Your task to perform on an android device: search for starred emails in the gmail app Image 0: 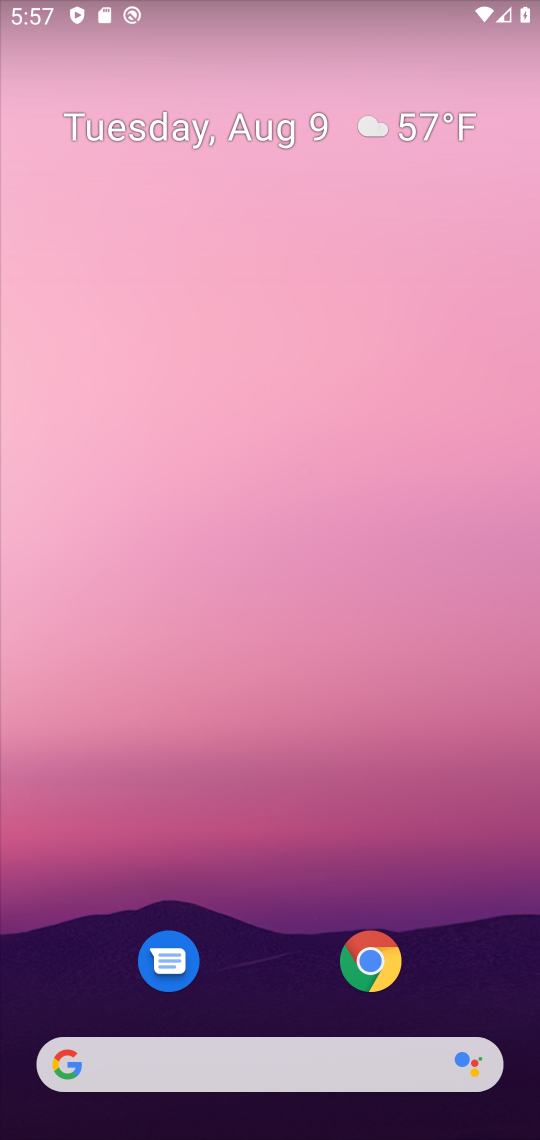
Step 0: drag from (238, 1007) to (86, 309)
Your task to perform on an android device: search for starred emails in the gmail app Image 1: 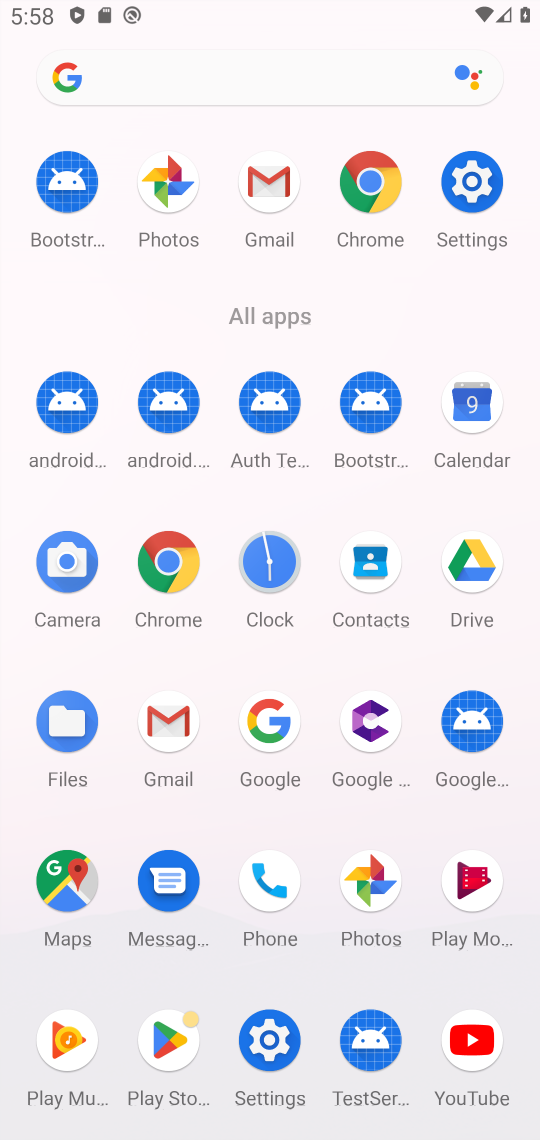
Step 1: click (175, 724)
Your task to perform on an android device: search for starred emails in the gmail app Image 2: 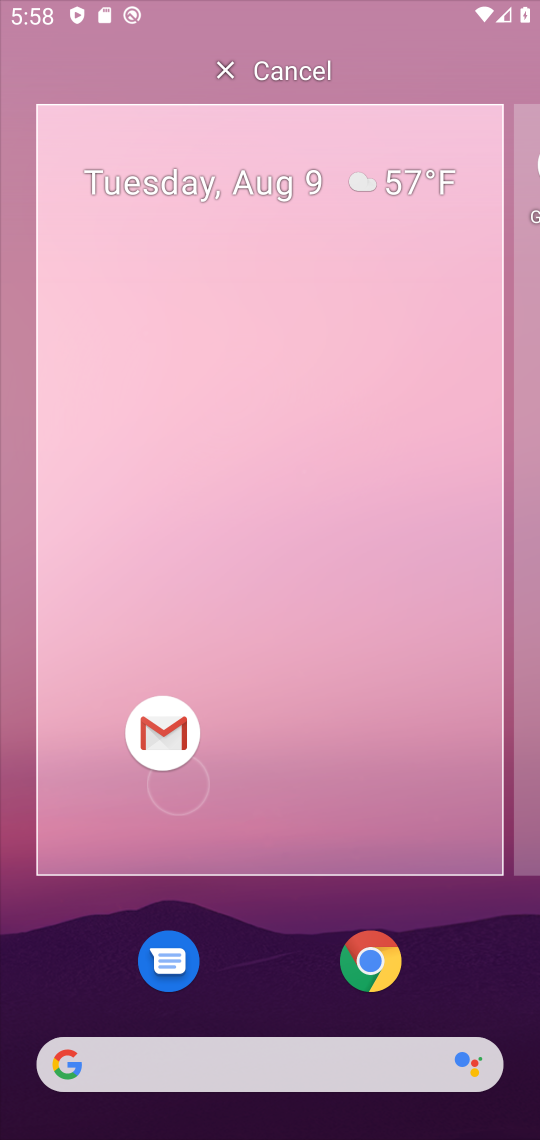
Step 2: click (160, 734)
Your task to perform on an android device: search for starred emails in the gmail app Image 3: 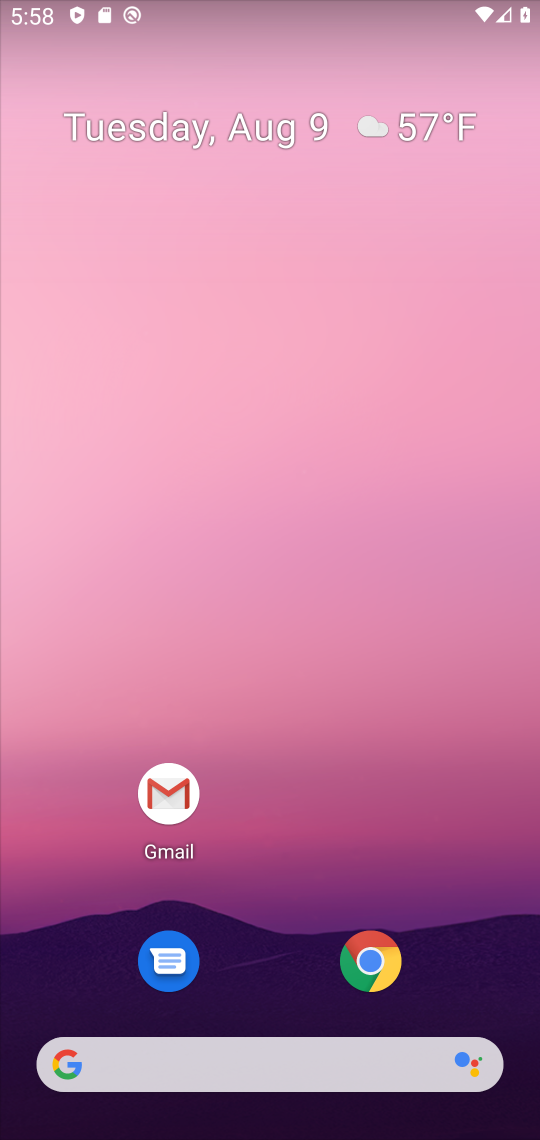
Step 3: drag from (344, 972) to (184, 13)
Your task to perform on an android device: search for starred emails in the gmail app Image 4: 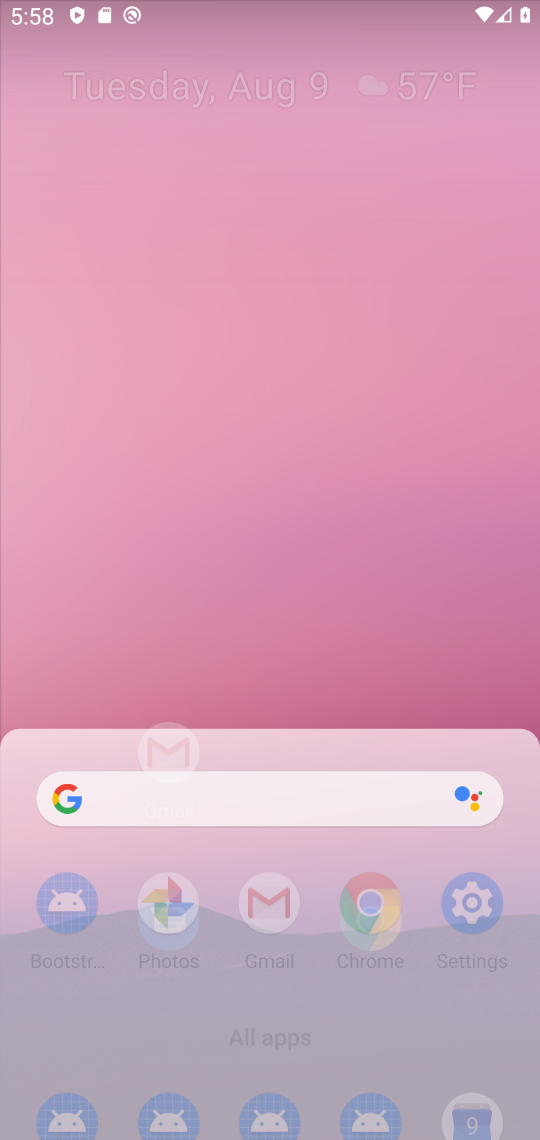
Step 4: drag from (250, 598) to (250, 135)
Your task to perform on an android device: search for starred emails in the gmail app Image 5: 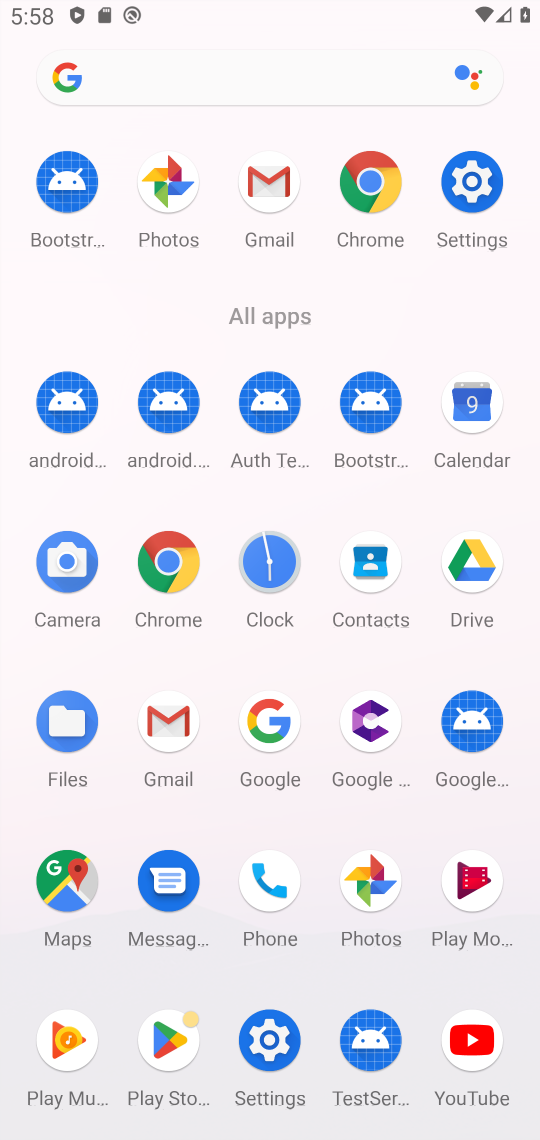
Step 5: drag from (139, 730) to (112, 259)
Your task to perform on an android device: search for starred emails in the gmail app Image 6: 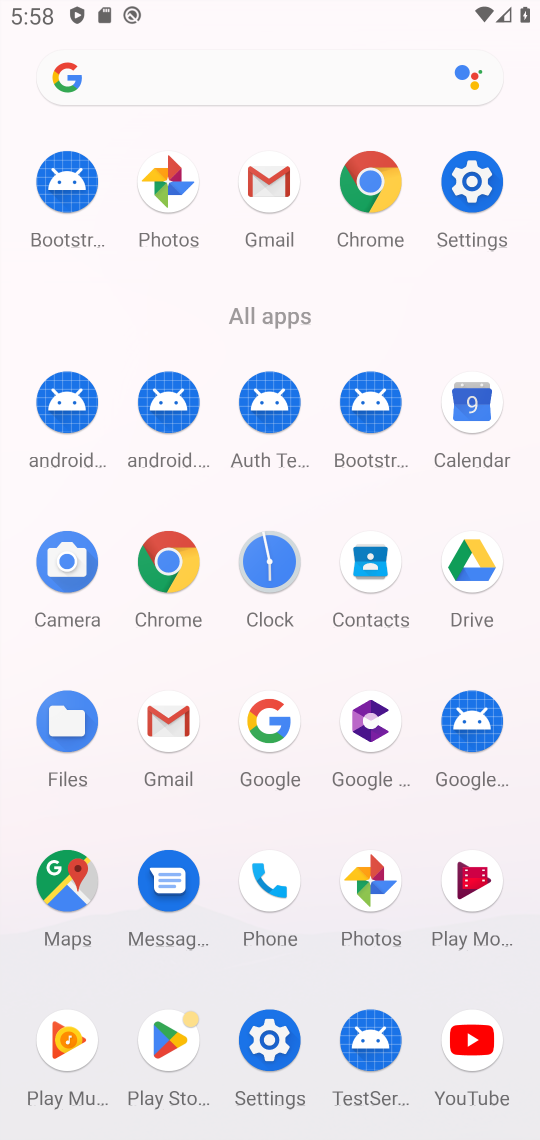
Step 6: click (160, 730)
Your task to perform on an android device: search for starred emails in the gmail app Image 7: 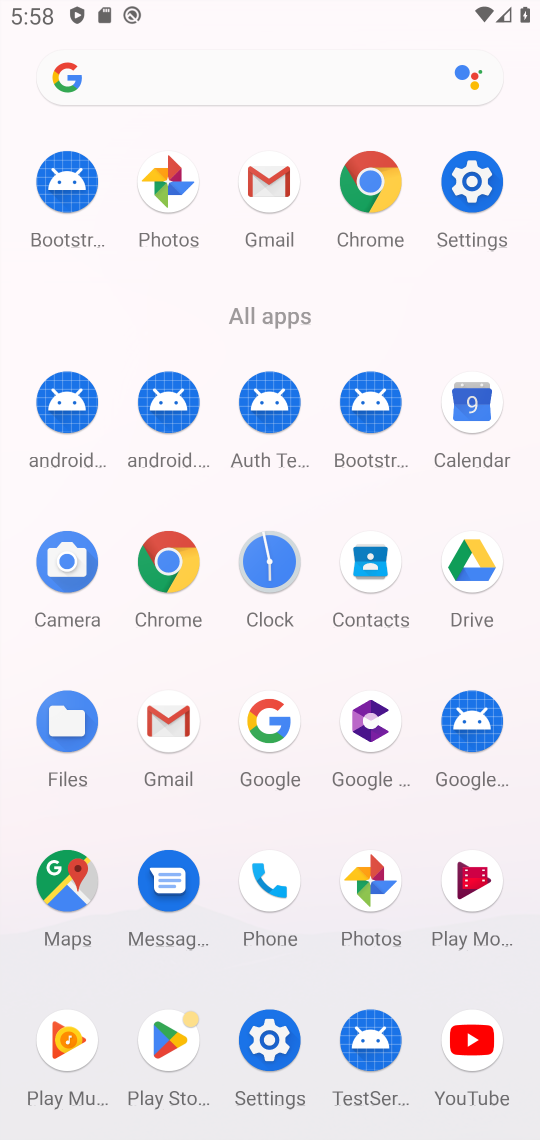
Step 7: click (160, 730)
Your task to perform on an android device: search for starred emails in the gmail app Image 8: 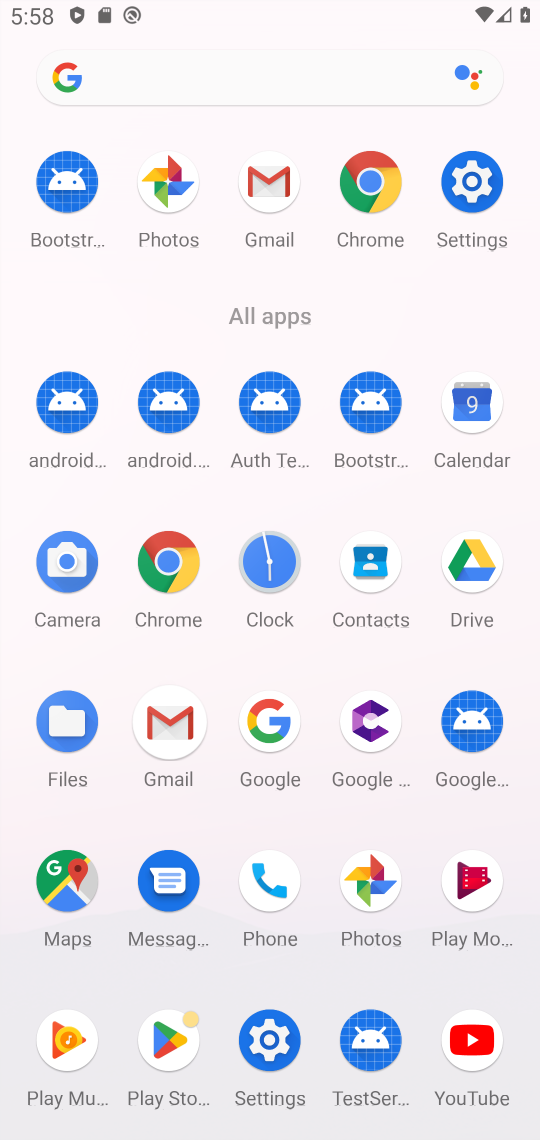
Step 8: click (163, 730)
Your task to perform on an android device: search for starred emails in the gmail app Image 9: 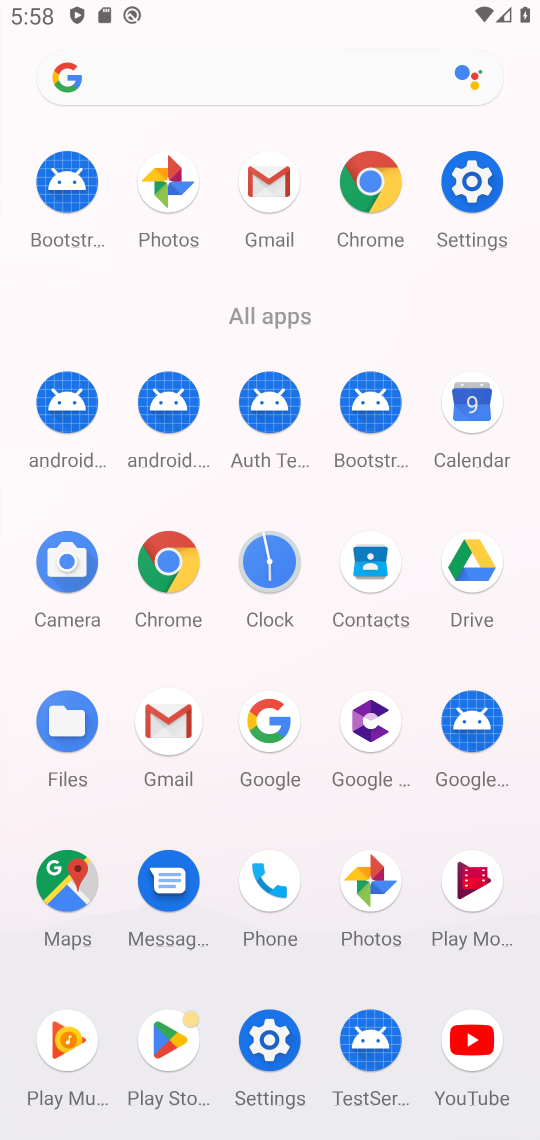
Step 9: click (179, 738)
Your task to perform on an android device: search for starred emails in the gmail app Image 10: 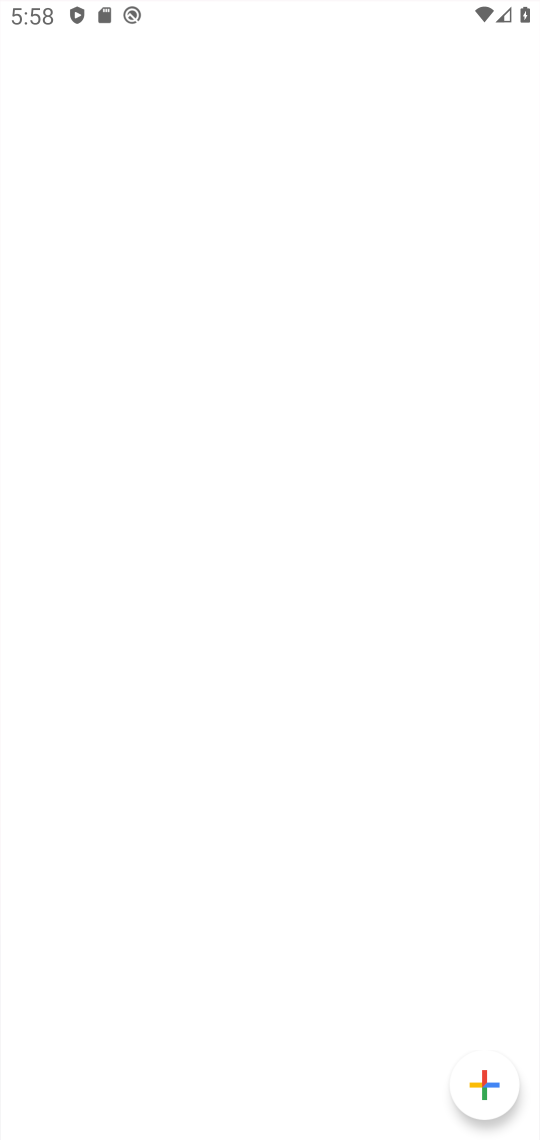
Step 10: click (179, 738)
Your task to perform on an android device: search for starred emails in the gmail app Image 11: 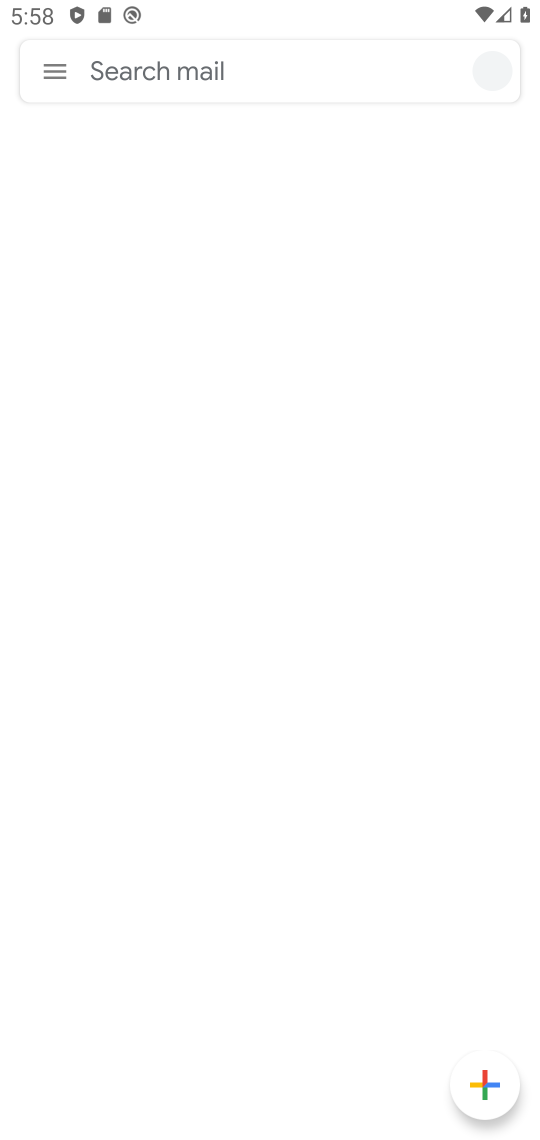
Step 11: click (179, 738)
Your task to perform on an android device: search for starred emails in the gmail app Image 12: 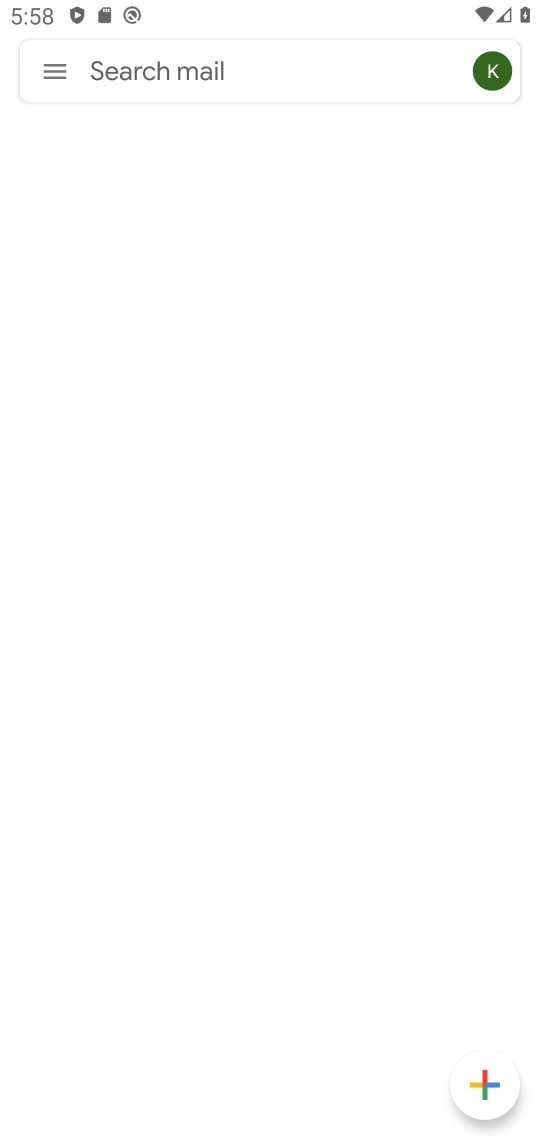
Step 12: click (179, 738)
Your task to perform on an android device: search for starred emails in the gmail app Image 13: 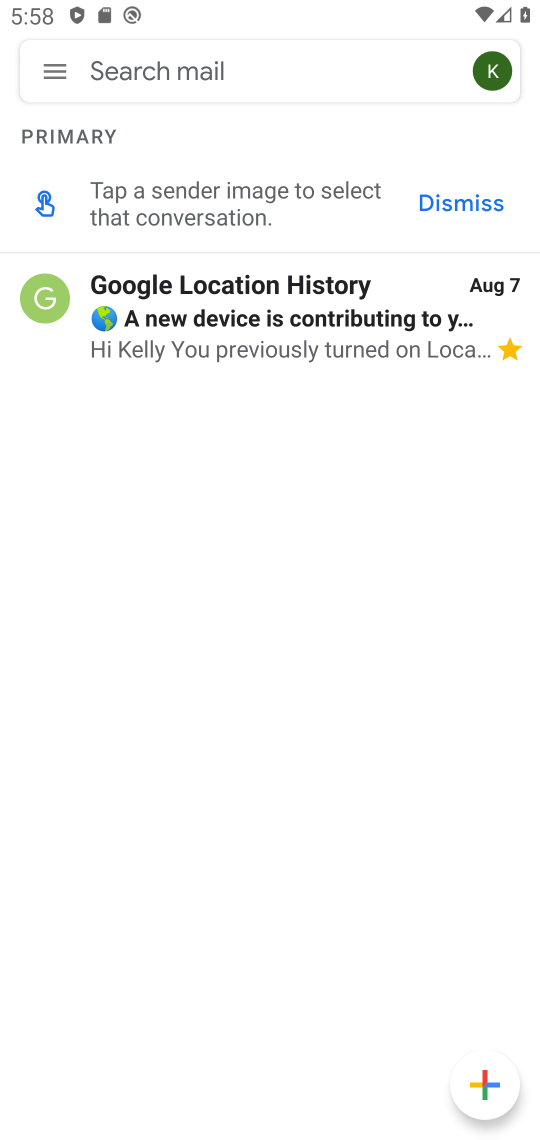
Step 13: click (80, 68)
Your task to perform on an android device: search for starred emails in the gmail app Image 14: 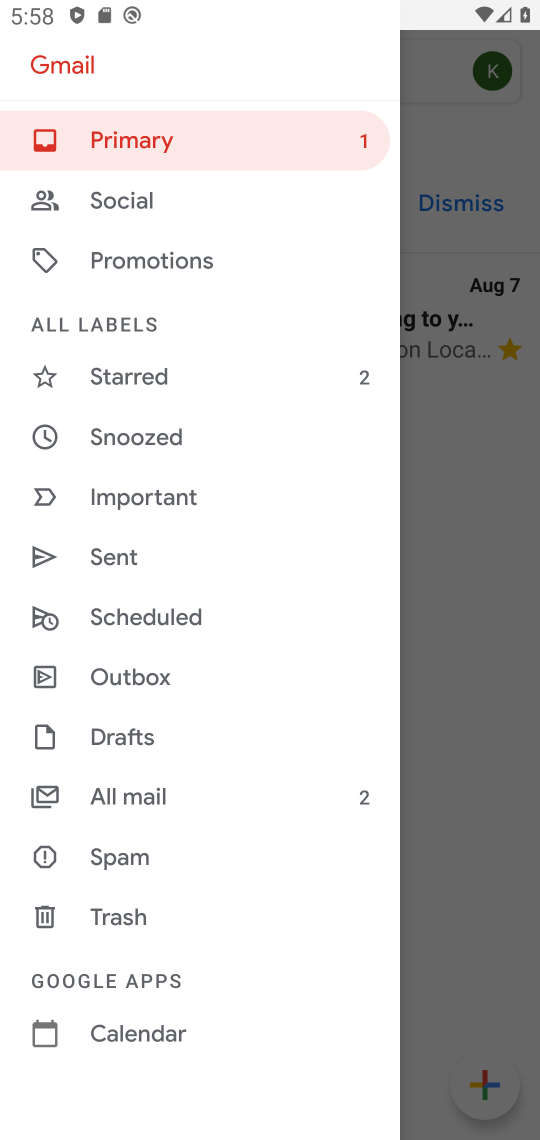
Step 14: click (85, 376)
Your task to perform on an android device: search for starred emails in the gmail app Image 15: 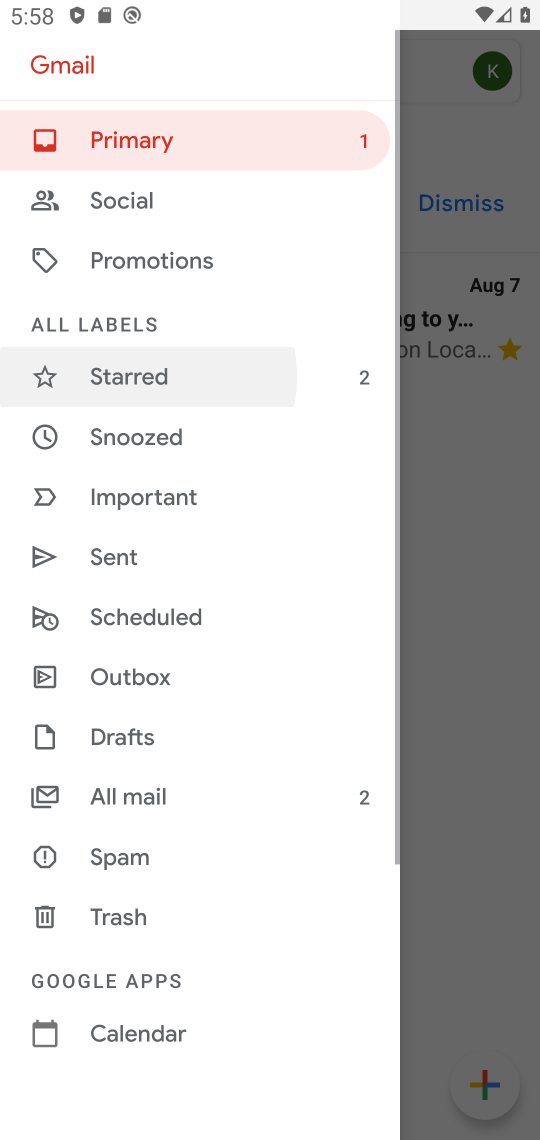
Step 15: click (122, 377)
Your task to perform on an android device: search for starred emails in the gmail app Image 16: 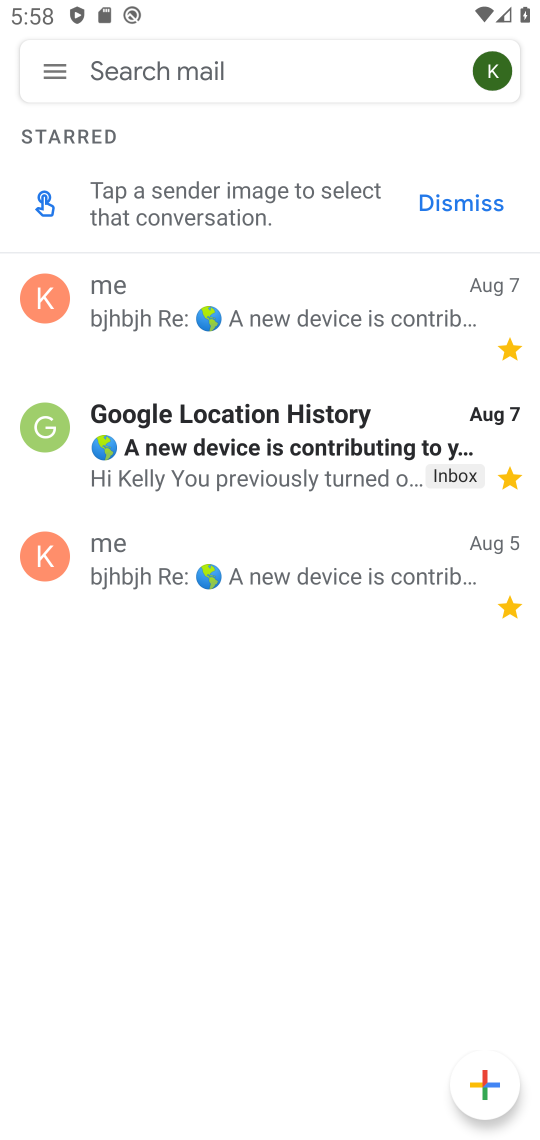
Step 16: click (133, 364)
Your task to perform on an android device: search for starred emails in the gmail app Image 17: 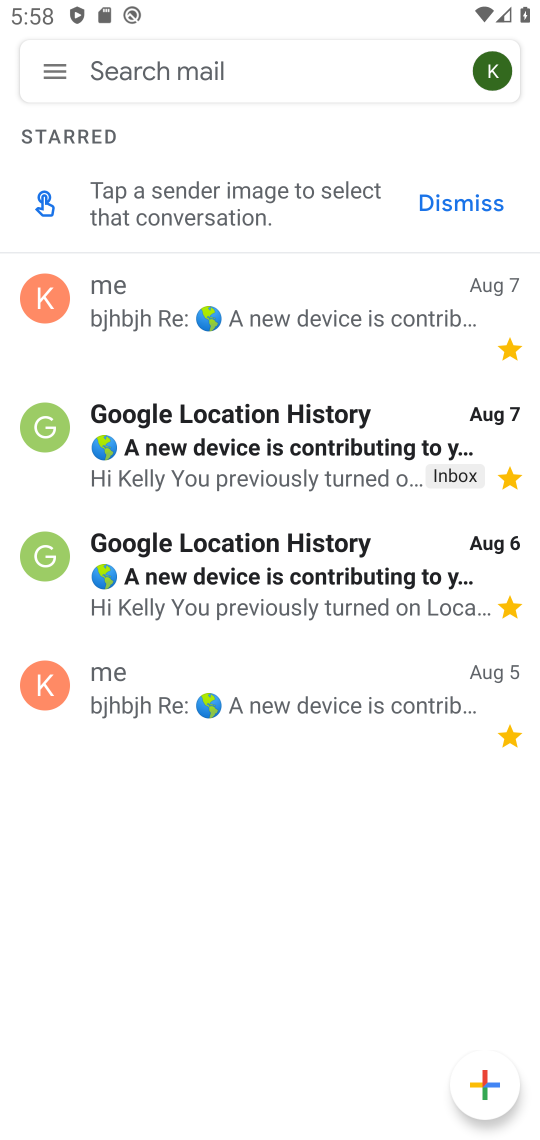
Step 17: task complete